Your task to perform on an android device: see tabs open on other devices in the chrome app Image 0: 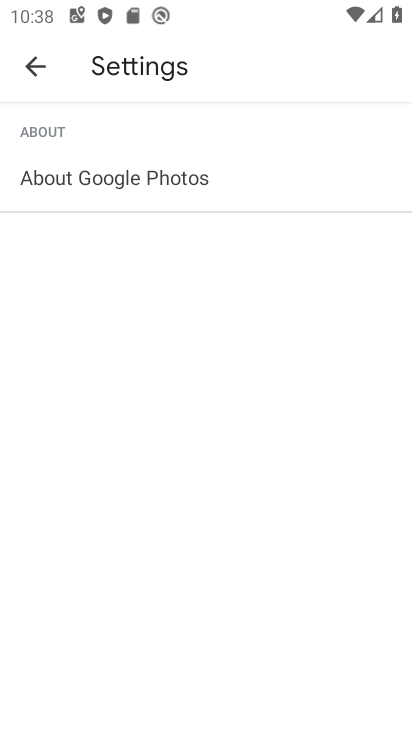
Step 0: press home button
Your task to perform on an android device: see tabs open on other devices in the chrome app Image 1: 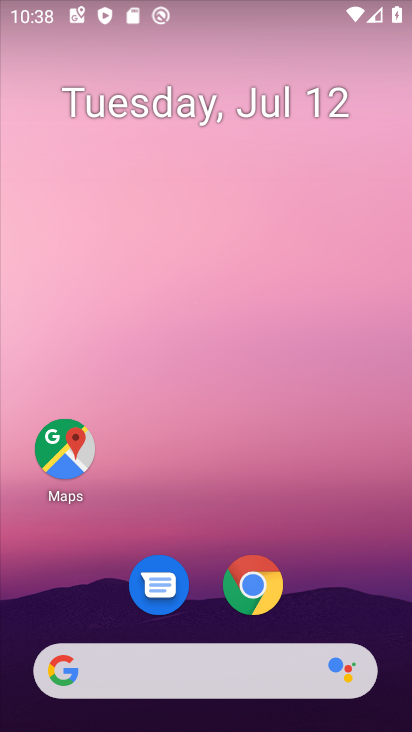
Step 1: click (260, 581)
Your task to perform on an android device: see tabs open on other devices in the chrome app Image 2: 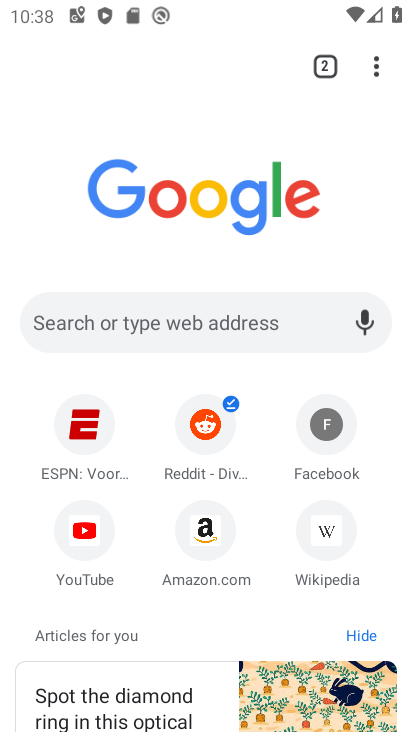
Step 2: click (372, 66)
Your task to perform on an android device: see tabs open on other devices in the chrome app Image 3: 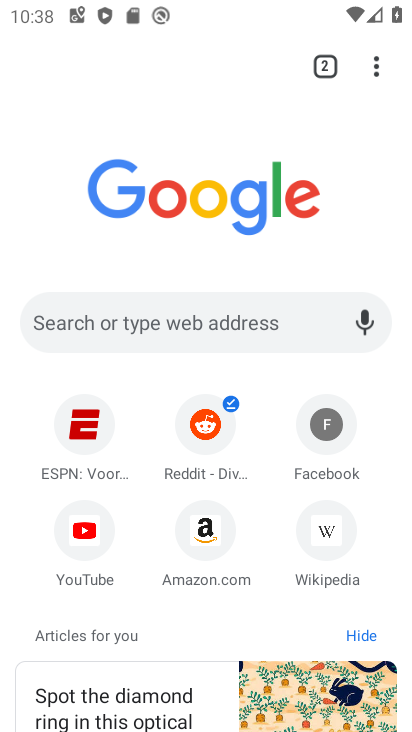
Step 3: click (375, 67)
Your task to perform on an android device: see tabs open on other devices in the chrome app Image 4: 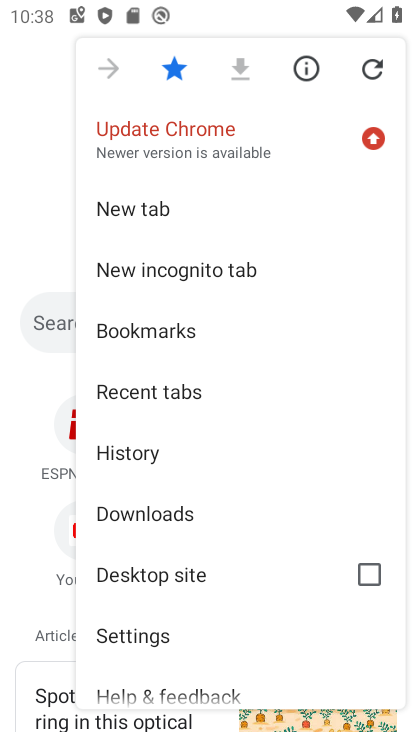
Step 4: click (181, 394)
Your task to perform on an android device: see tabs open on other devices in the chrome app Image 5: 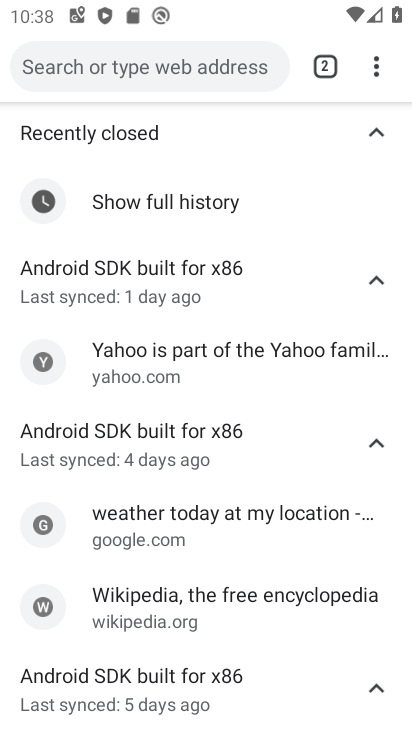
Step 5: task complete